Your task to perform on an android device: change your default location settings in chrome Image 0: 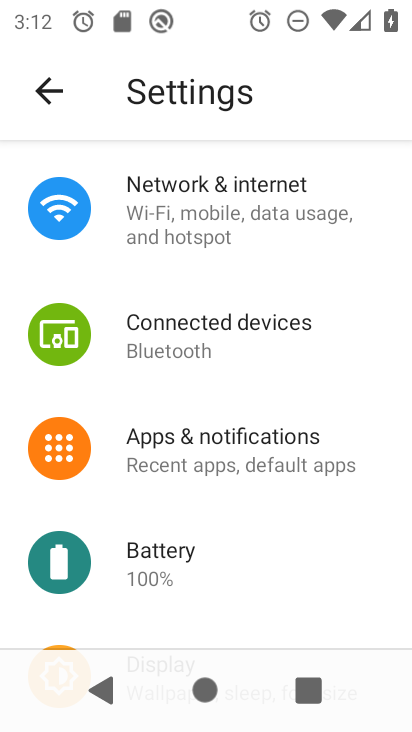
Step 0: press home button
Your task to perform on an android device: change your default location settings in chrome Image 1: 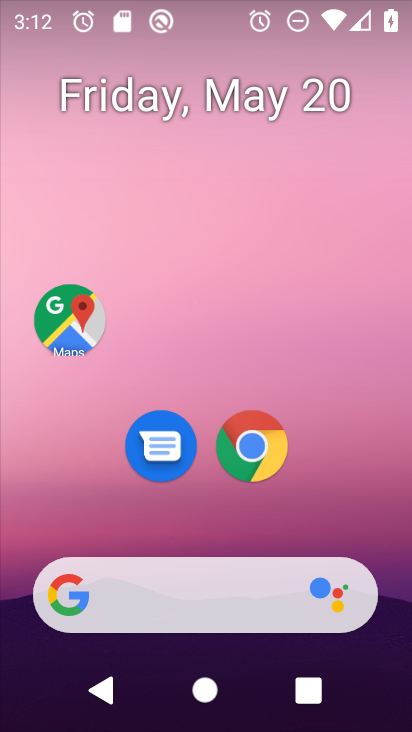
Step 1: click (256, 449)
Your task to perform on an android device: change your default location settings in chrome Image 2: 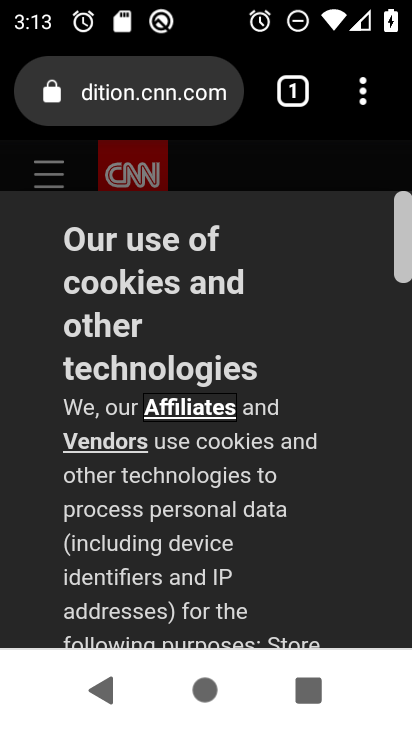
Step 2: click (361, 95)
Your task to perform on an android device: change your default location settings in chrome Image 3: 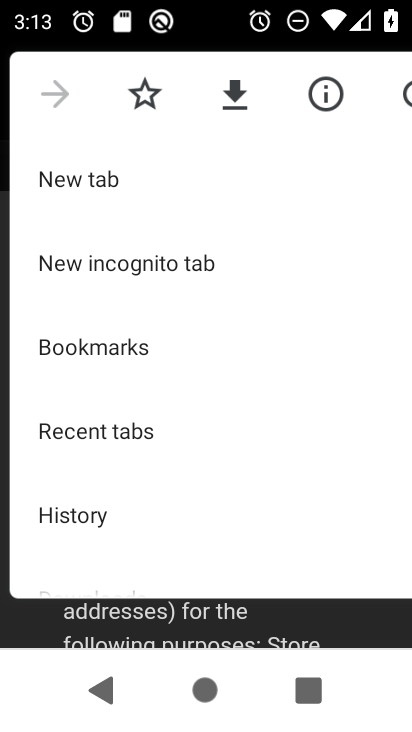
Step 3: drag from (181, 461) to (180, 161)
Your task to perform on an android device: change your default location settings in chrome Image 4: 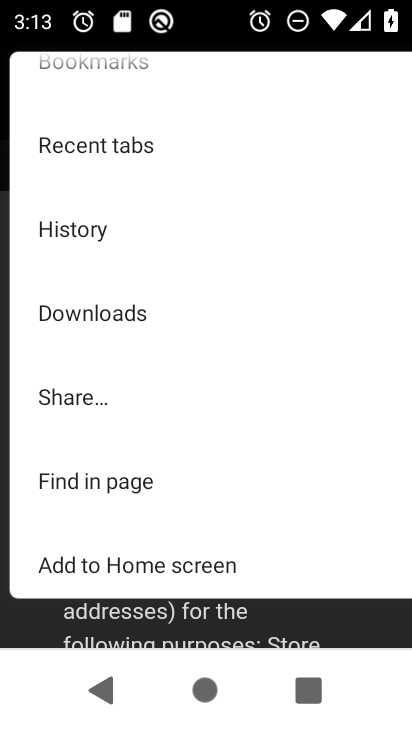
Step 4: drag from (181, 493) to (181, 178)
Your task to perform on an android device: change your default location settings in chrome Image 5: 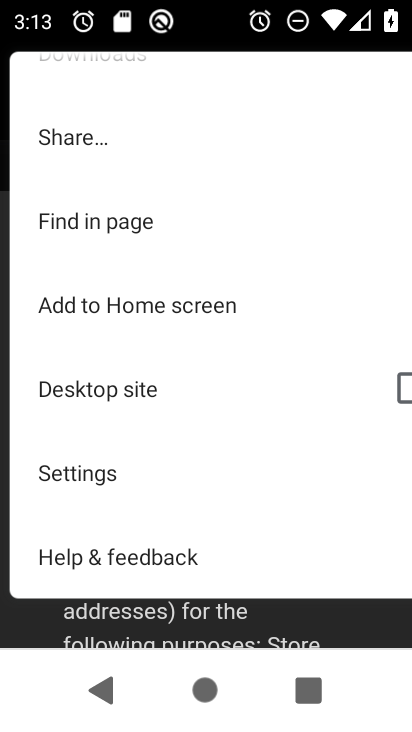
Step 5: click (99, 481)
Your task to perform on an android device: change your default location settings in chrome Image 6: 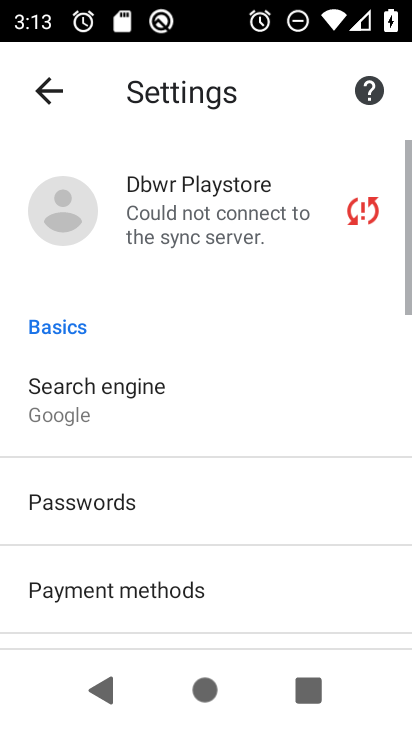
Step 6: drag from (215, 538) to (201, 151)
Your task to perform on an android device: change your default location settings in chrome Image 7: 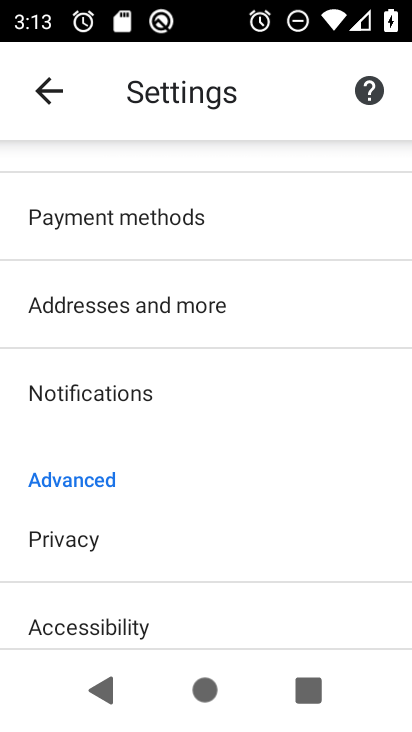
Step 7: drag from (143, 496) to (141, 206)
Your task to perform on an android device: change your default location settings in chrome Image 8: 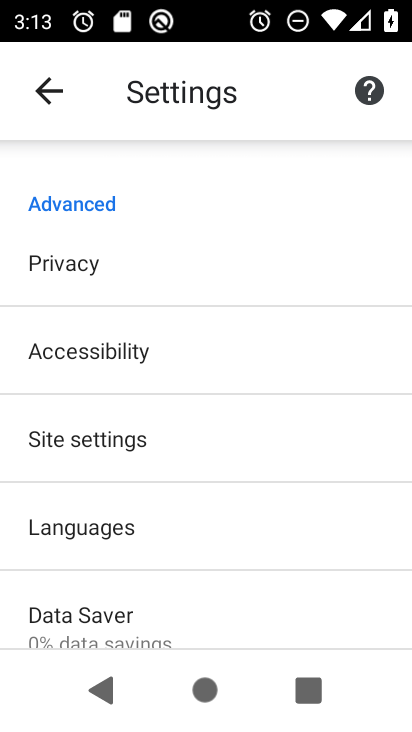
Step 8: click (107, 440)
Your task to perform on an android device: change your default location settings in chrome Image 9: 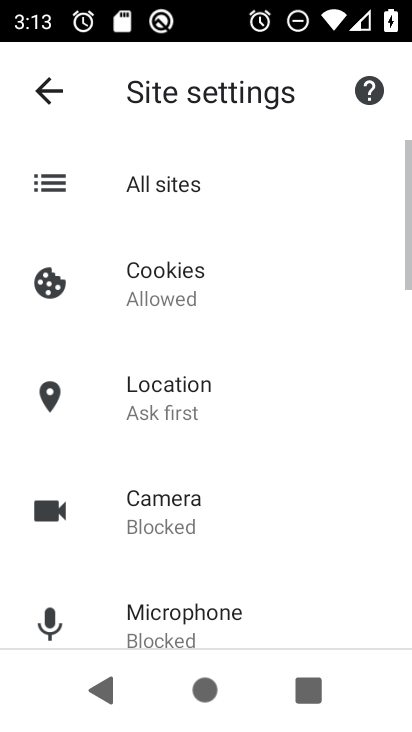
Step 9: click (140, 408)
Your task to perform on an android device: change your default location settings in chrome Image 10: 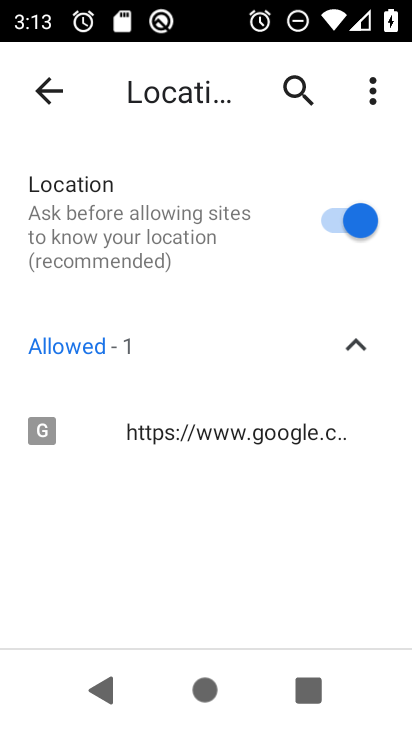
Step 10: click (371, 219)
Your task to perform on an android device: change your default location settings in chrome Image 11: 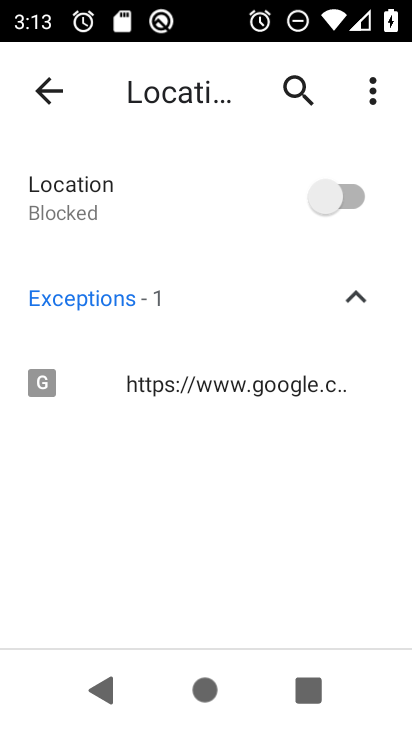
Step 11: task complete